Your task to perform on an android device: turn on sleep mode Image 0: 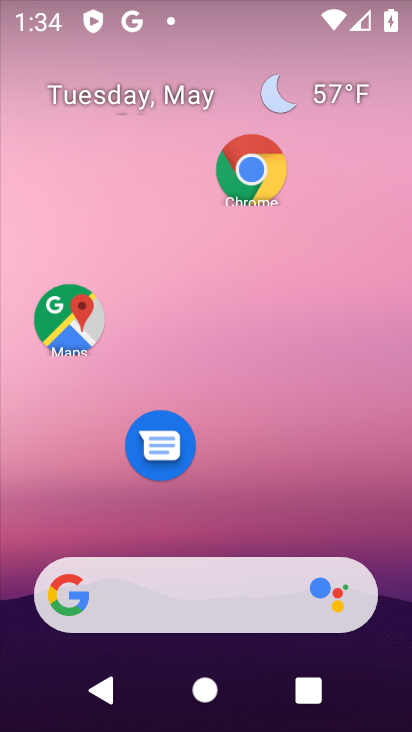
Step 0: drag from (231, 718) to (197, 183)
Your task to perform on an android device: turn on sleep mode Image 1: 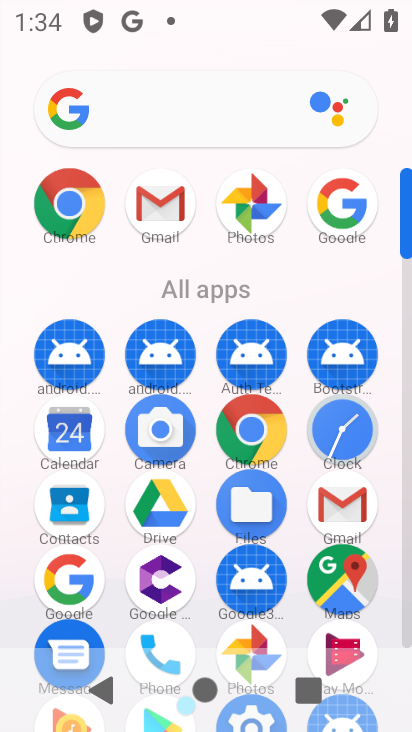
Step 1: drag from (101, 599) to (103, 252)
Your task to perform on an android device: turn on sleep mode Image 2: 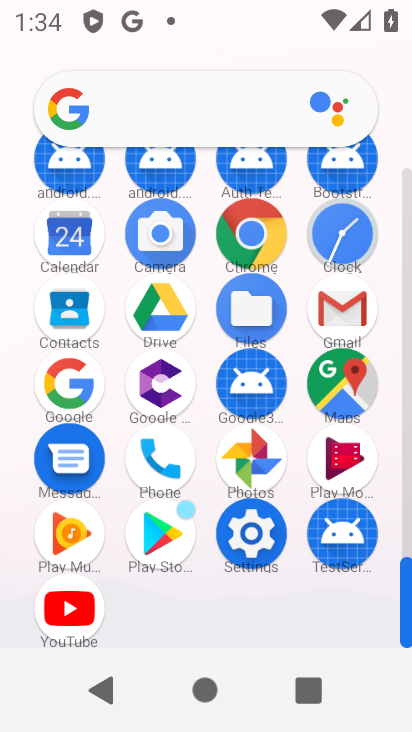
Step 2: click (256, 538)
Your task to perform on an android device: turn on sleep mode Image 3: 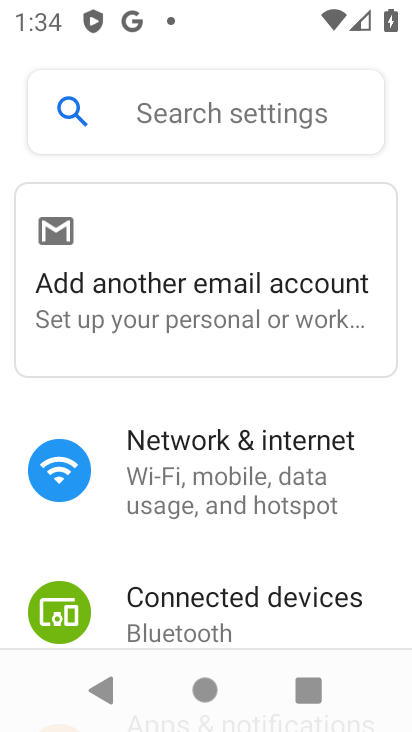
Step 3: drag from (281, 631) to (275, 196)
Your task to perform on an android device: turn on sleep mode Image 4: 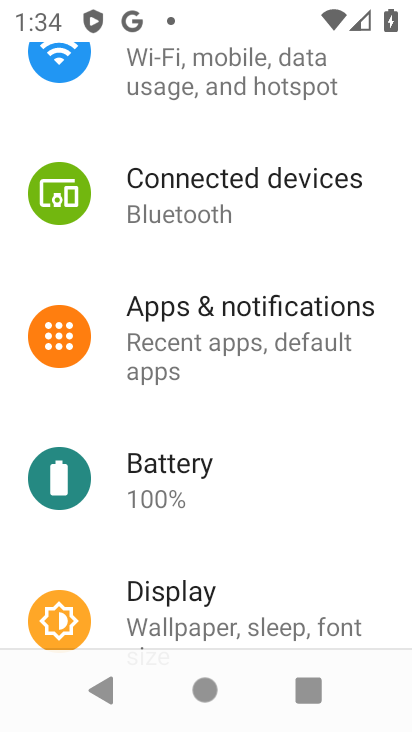
Step 4: drag from (247, 575) to (254, 286)
Your task to perform on an android device: turn on sleep mode Image 5: 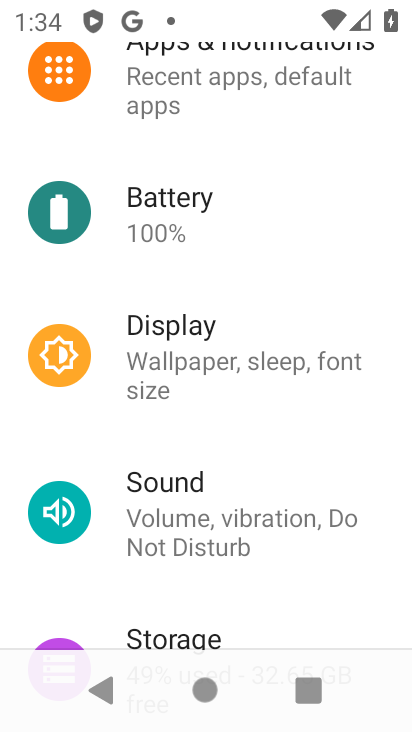
Step 5: click (193, 355)
Your task to perform on an android device: turn on sleep mode Image 6: 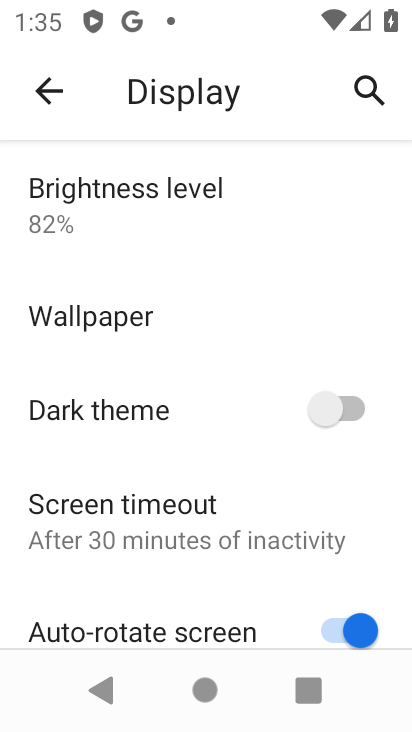
Step 6: task complete